Your task to perform on an android device: Open the phone app and click the voicemail tab. Image 0: 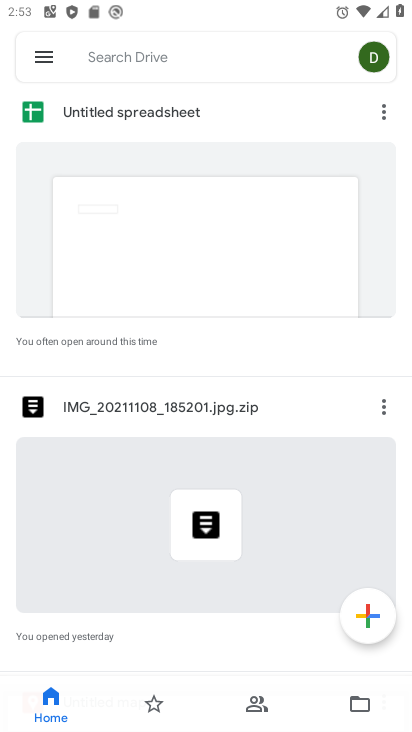
Step 0: press home button
Your task to perform on an android device: Open the phone app and click the voicemail tab. Image 1: 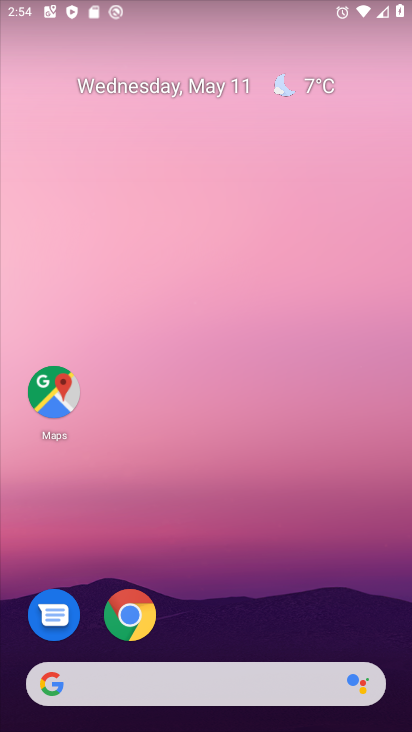
Step 1: drag from (266, 607) to (323, 112)
Your task to perform on an android device: Open the phone app and click the voicemail tab. Image 2: 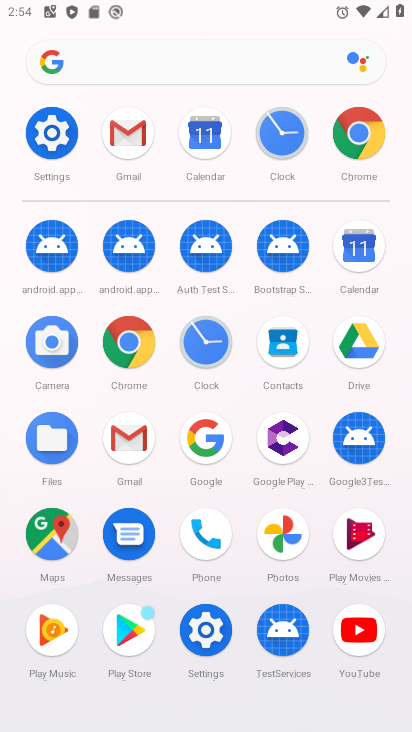
Step 2: click (201, 541)
Your task to perform on an android device: Open the phone app and click the voicemail tab. Image 3: 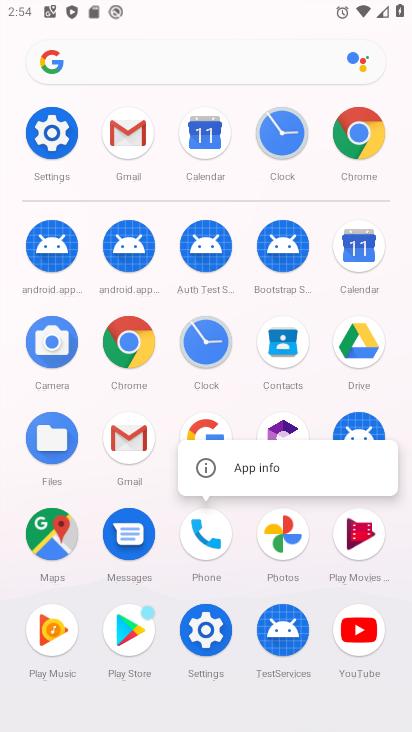
Step 3: click (201, 541)
Your task to perform on an android device: Open the phone app and click the voicemail tab. Image 4: 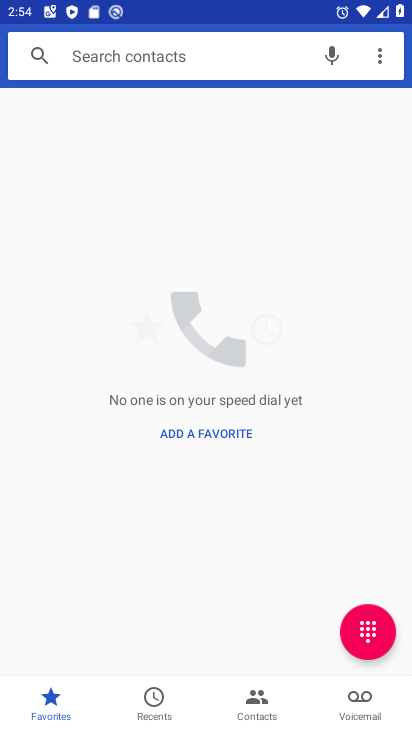
Step 4: click (345, 712)
Your task to perform on an android device: Open the phone app and click the voicemail tab. Image 5: 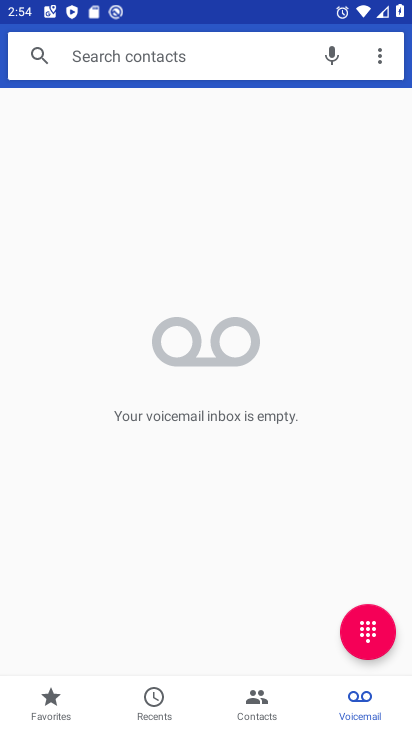
Step 5: task complete